Your task to perform on an android device: turn off data saver in the chrome app Image 0: 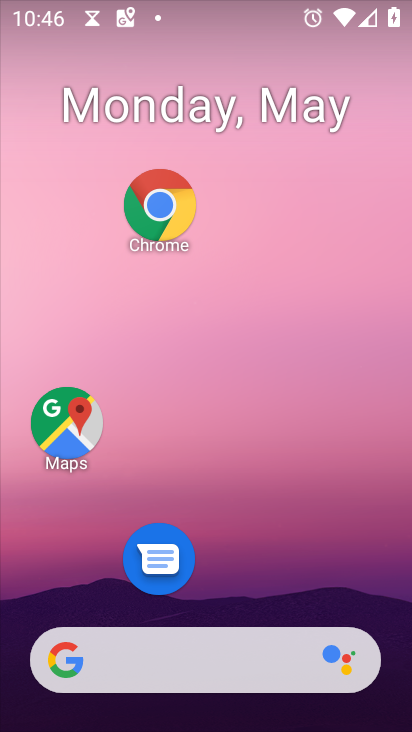
Step 0: drag from (281, 592) to (210, 56)
Your task to perform on an android device: turn off data saver in the chrome app Image 1: 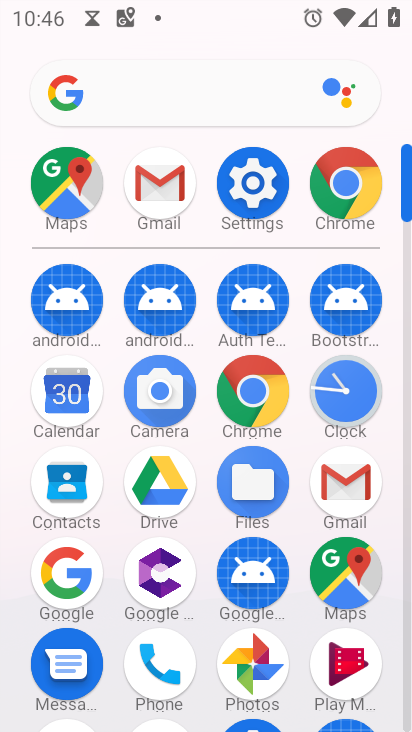
Step 1: click (339, 176)
Your task to perform on an android device: turn off data saver in the chrome app Image 2: 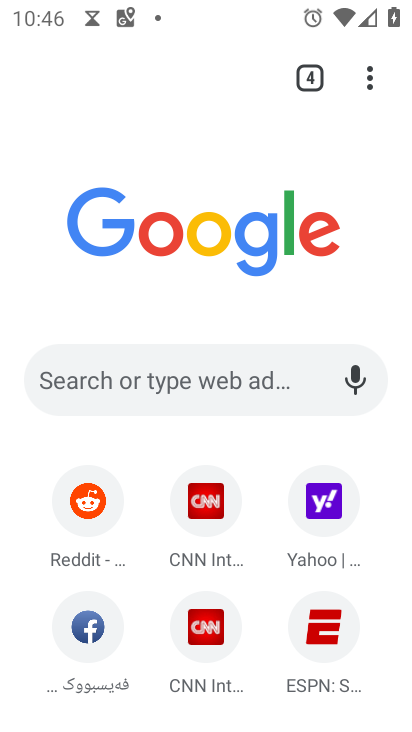
Step 2: drag from (371, 90) to (96, 620)
Your task to perform on an android device: turn off data saver in the chrome app Image 3: 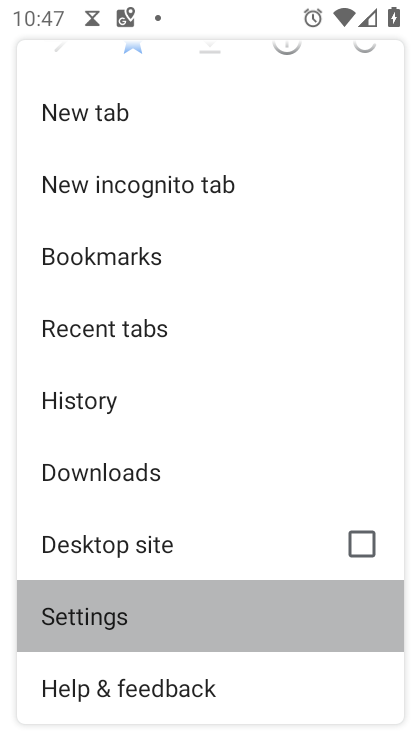
Step 3: click (98, 619)
Your task to perform on an android device: turn off data saver in the chrome app Image 4: 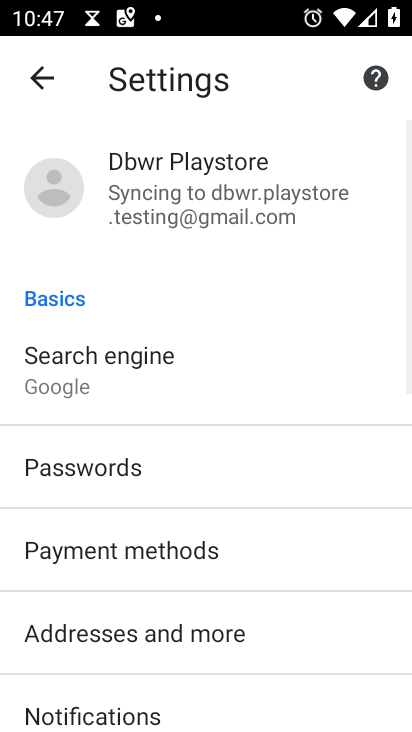
Step 4: drag from (183, 520) to (164, 73)
Your task to perform on an android device: turn off data saver in the chrome app Image 5: 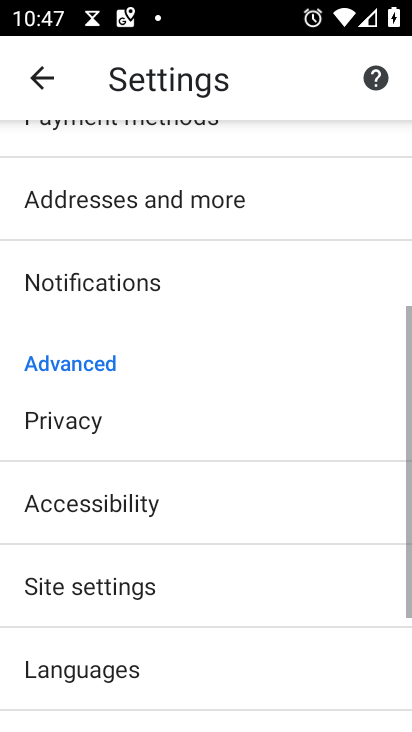
Step 5: drag from (217, 447) to (201, 130)
Your task to perform on an android device: turn off data saver in the chrome app Image 6: 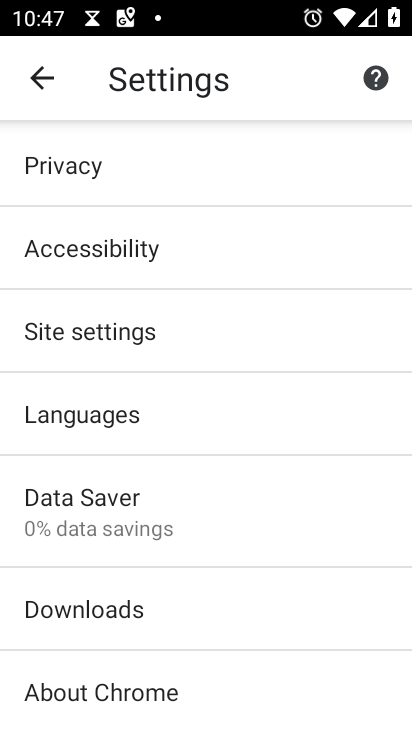
Step 6: click (82, 503)
Your task to perform on an android device: turn off data saver in the chrome app Image 7: 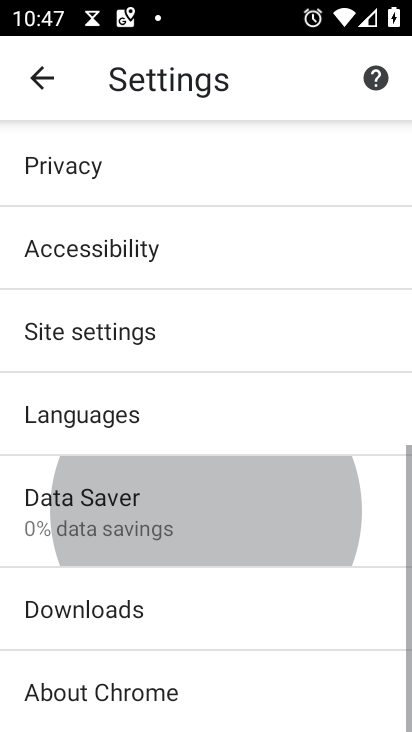
Step 7: click (82, 503)
Your task to perform on an android device: turn off data saver in the chrome app Image 8: 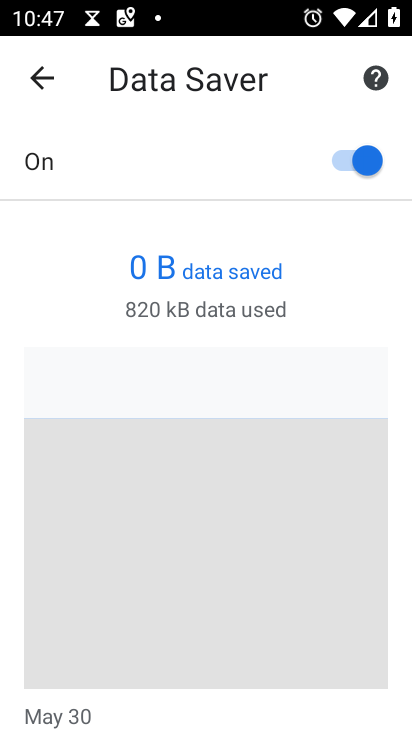
Step 8: click (367, 161)
Your task to perform on an android device: turn off data saver in the chrome app Image 9: 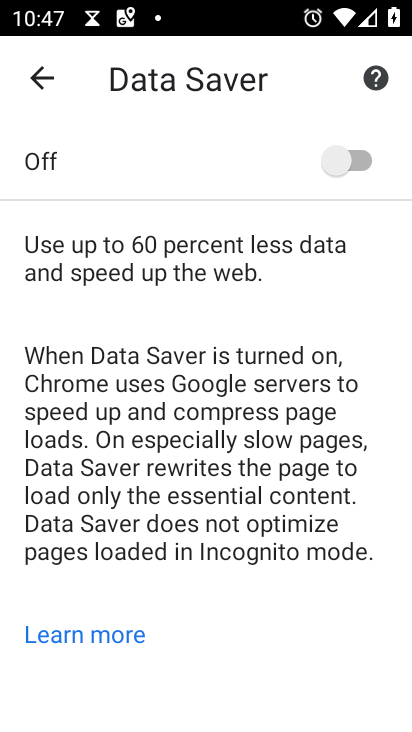
Step 9: task complete